Your task to perform on an android device: Open Reddit.com Image 0: 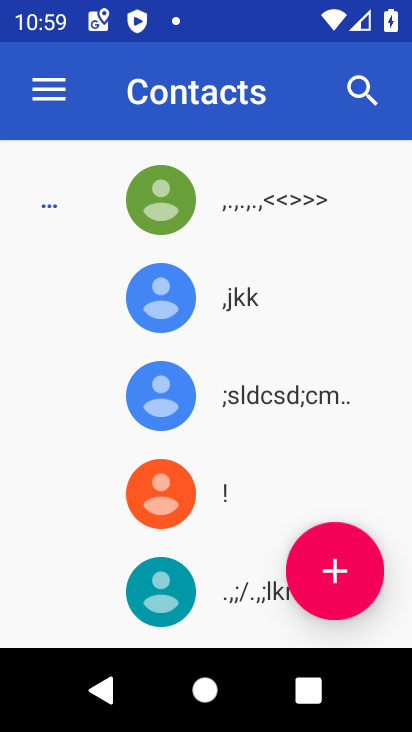
Step 0: press home button
Your task to perform on an android device: Open Reddit.com Image 1: 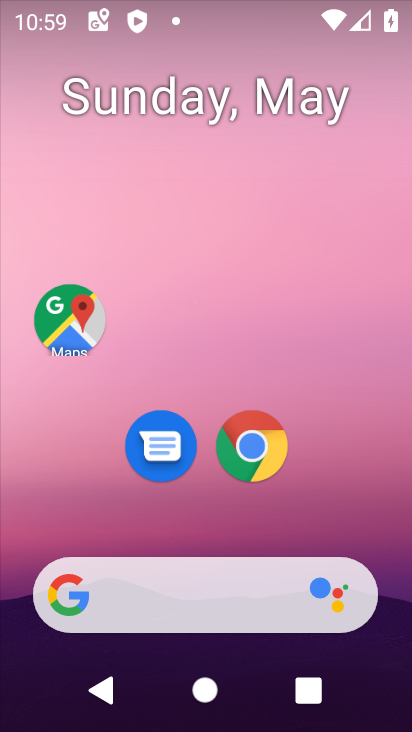
Step 1: click (214, 606)
Your task to perform on an android device: Open Reddit.com Image 2: 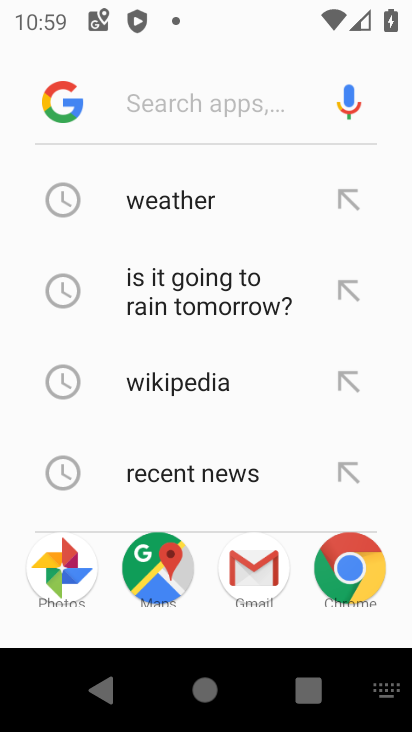
Step 2: type "Reddit.com"
Your task to perform on an android device: Open Reddit.com Image 3: 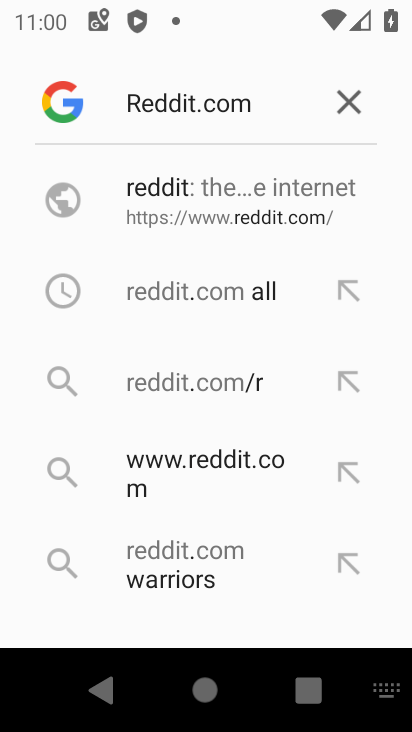
Step 3: click (207, 467)
Your task to perform on an android device: Open Reddit.com Image 4: 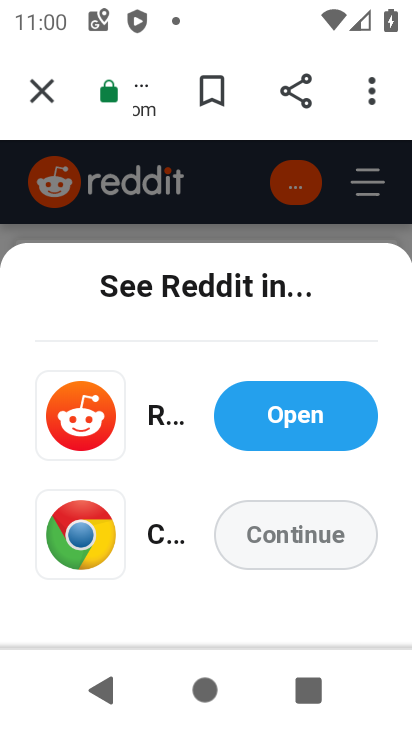
Step 4: click (288, 549)
Your task to perform on an android device: Open Reddit.com Image 5: 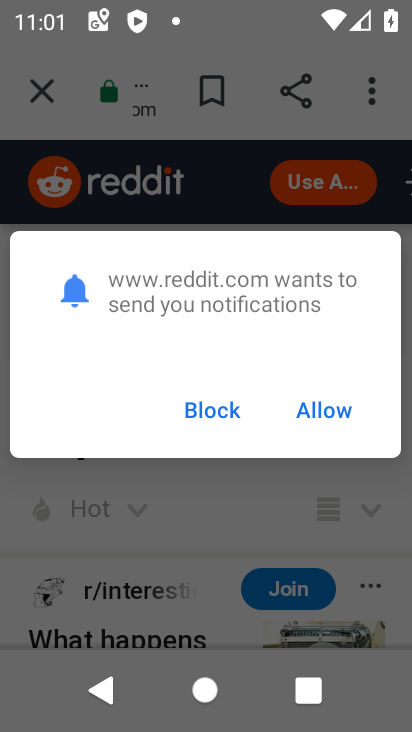
Step 5: task complete